Your task to perform on an android device: Open Youtube and go to "Your channel" Image 0: 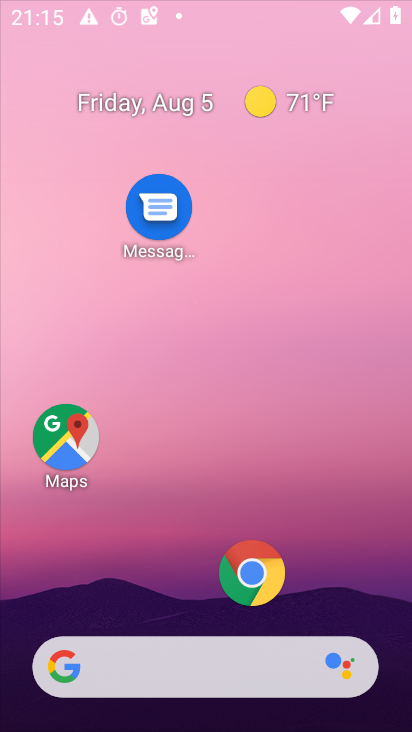
Step 0: press home button
Your task to perform on an android device: Open Youtube and go to "Your channel" Image 1: 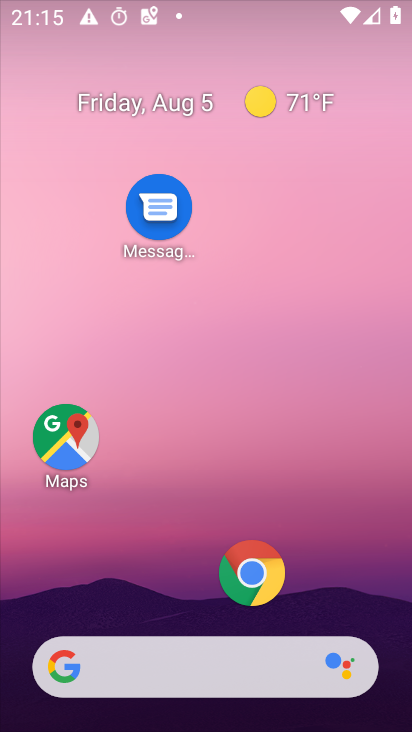
Step 1: press home button
Your task to perform on an android device: Open Youtube and go to "Your channel" Image 2: 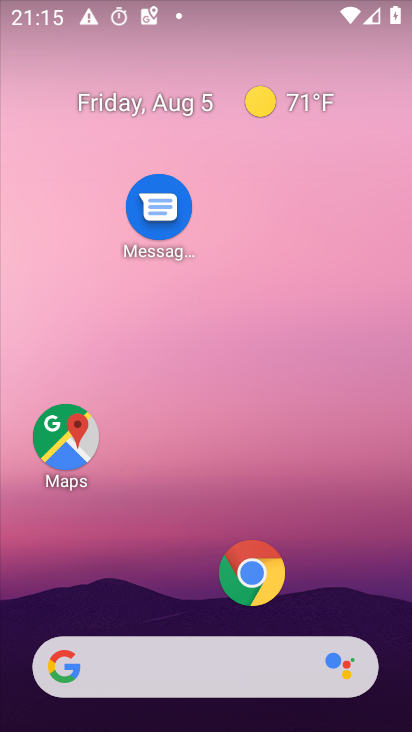
Step 2: press home button
Your task to perform on an android device: Open Youtube and go to "Your channel" Image 3: 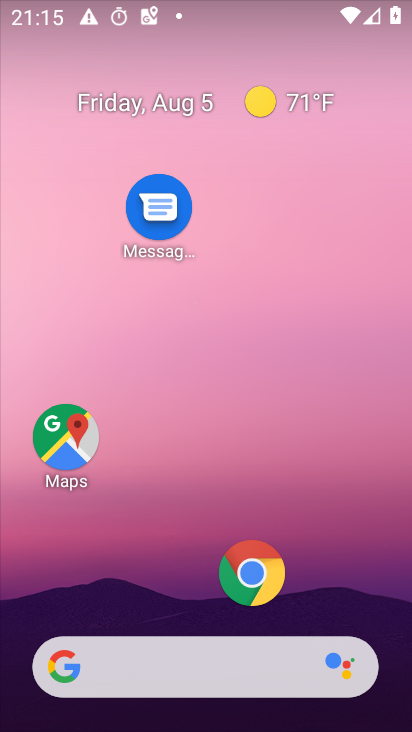
Step 3: drag from (321, 610) to (352, 72)
Your task to perform on an android device: Open Youtube and go to "Your channel" Image 4: 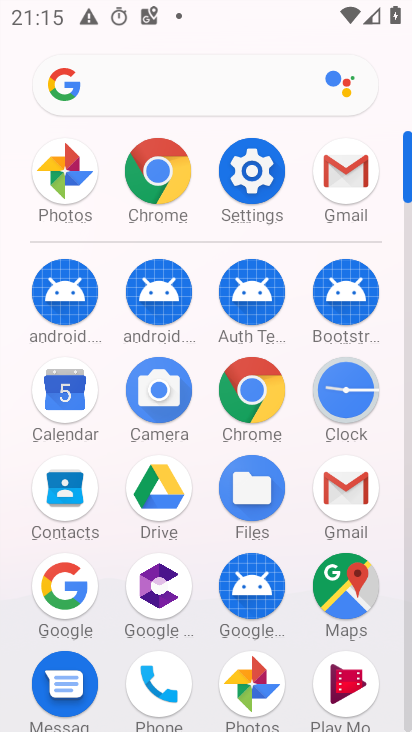
Step 4: drag from (299, 639) to (325, 157)
Your task to perform on an android device: Open Youtube and go to "Your channel" Image 5: 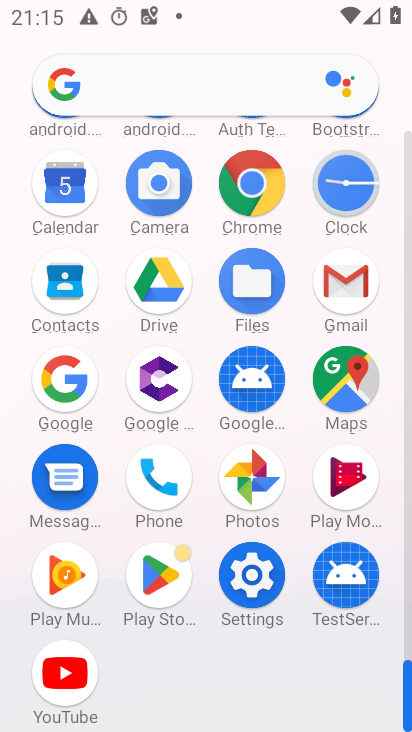
Step 5: click (60, 666)
Your task to perform on an android device: Open Youtube and go to "Your channel" Image 6: 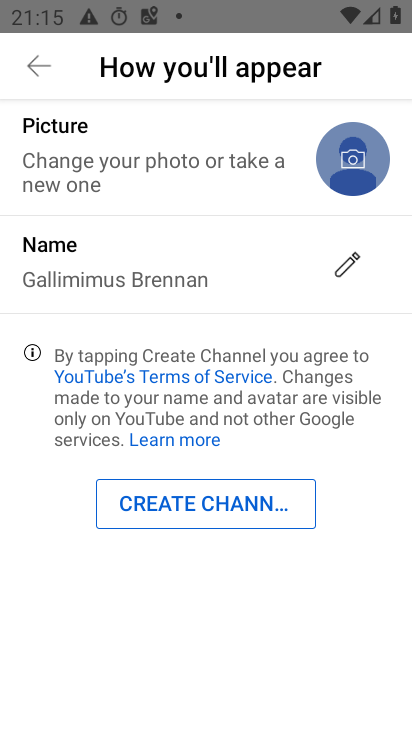
Step 6: task complete